Your task to perform on an android device: check storage Image 0: 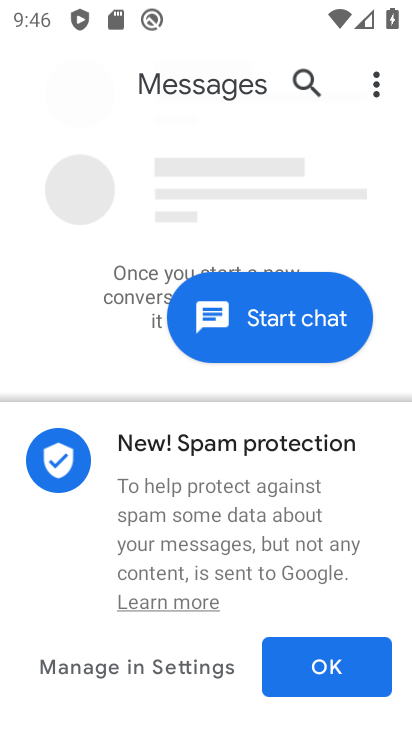
Step 0: press home button
Your task to perform on an android device: check storage Image 1: 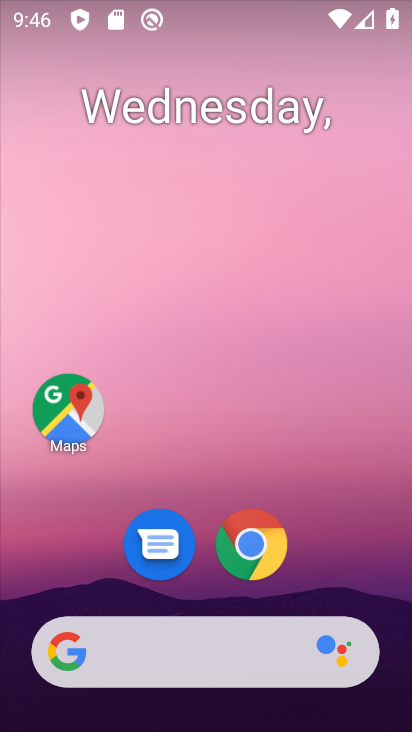
Step 1: drag from (213, 718) to (146, 98)
Your task to perform on an android device: check storage Image 2: 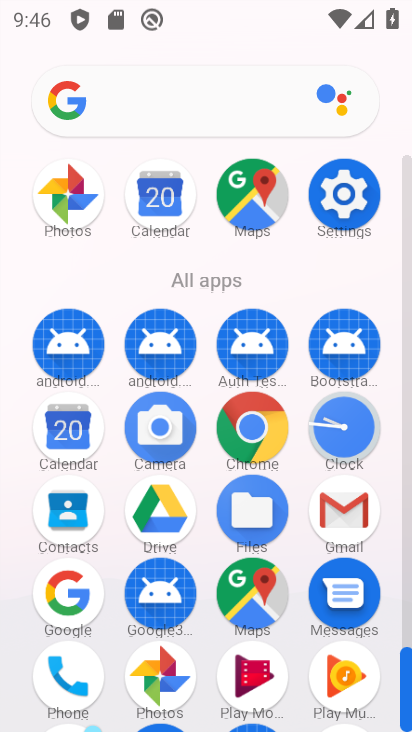
Step 2: click (344, 193)
Your task to perform on an android device: check storage Image 3: 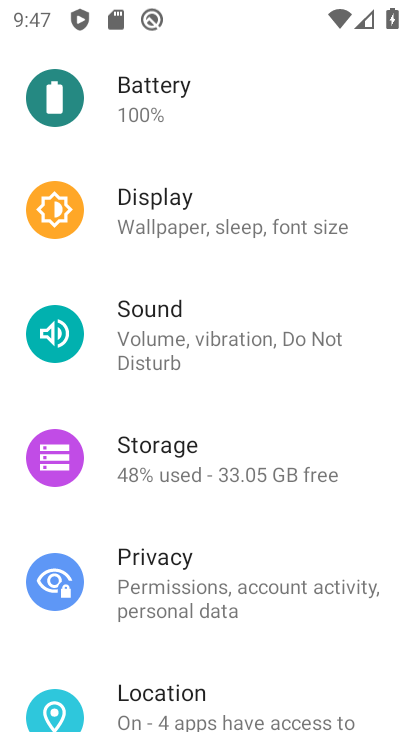
Step 3: click (155, 462)
Your task to perform on an android device: check storage Image 4: 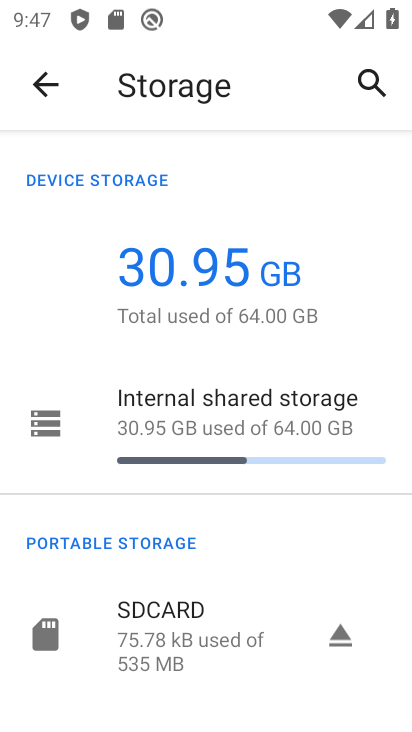
Step 4: task complete